Your task to perform on an android device: turn on airplane mode Image 0: 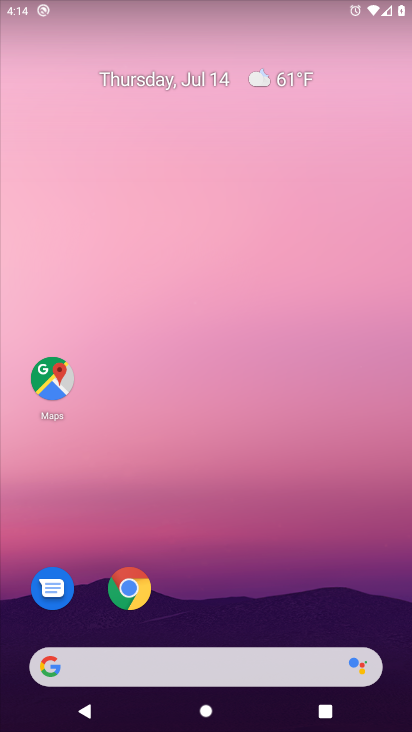
Step 0: press home button
Your task to perform on an android device: turn on airplane mode Image 1: 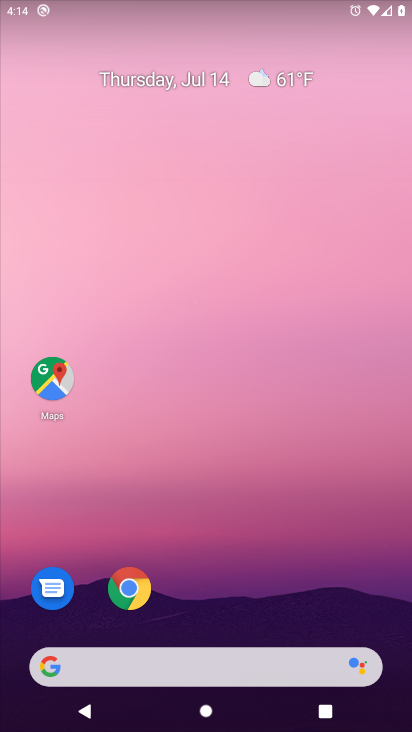
Step 1: drag from (275, 3) to (283, 386)
Your task to perform on an android device: turn on airplane mode Image 2: 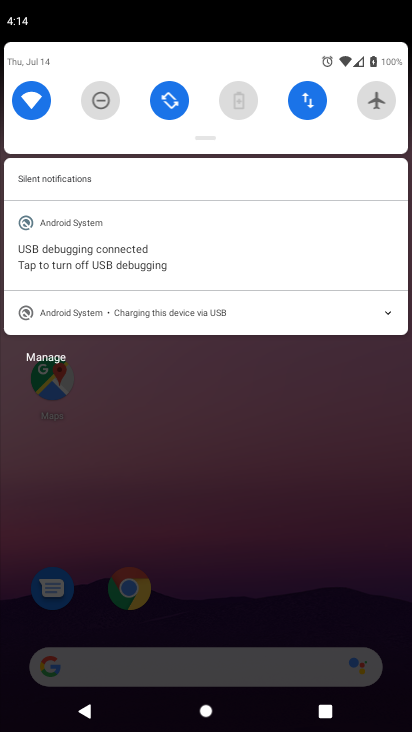
Step 2: click (386, 93)
Your task to perform on an android device: turn on airplane mode Image 3: 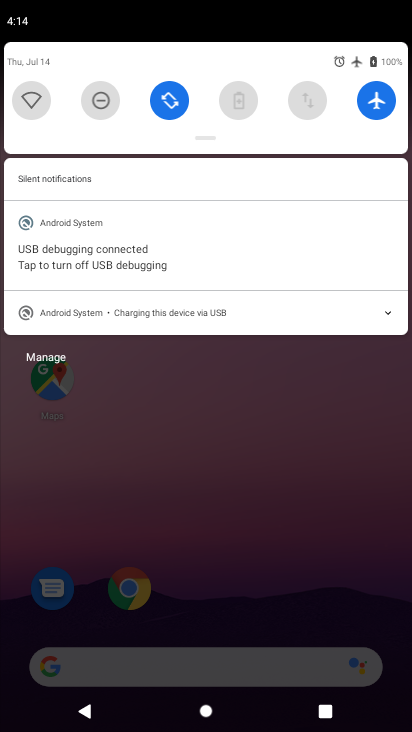
Step 3: task complete